Your task to perform on an android device: open a bookmark in the chrome app Image 0: 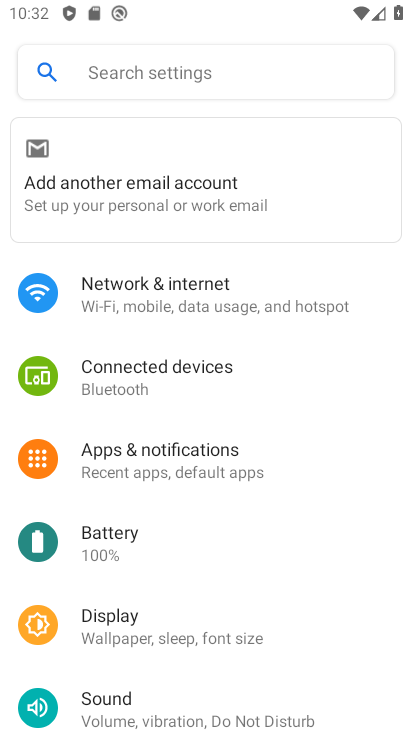
Step 0: press home button
Your task to perform on an android device: open a bookmark in the chrome app Image 1: 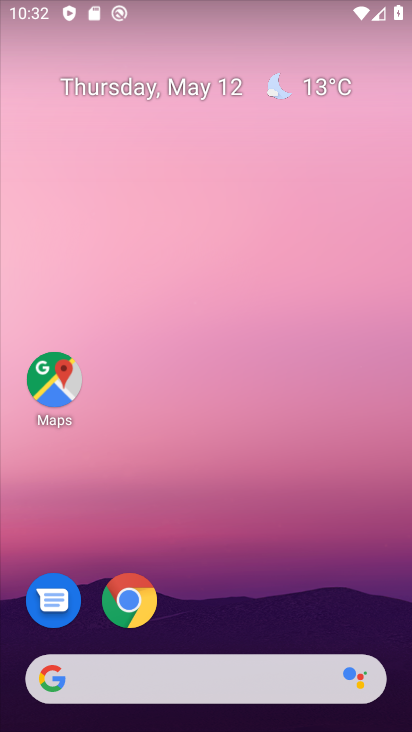
Step 1: click (128, 598)
Your task to perform on an android device: open a bookmark in the chrome app Image 2: 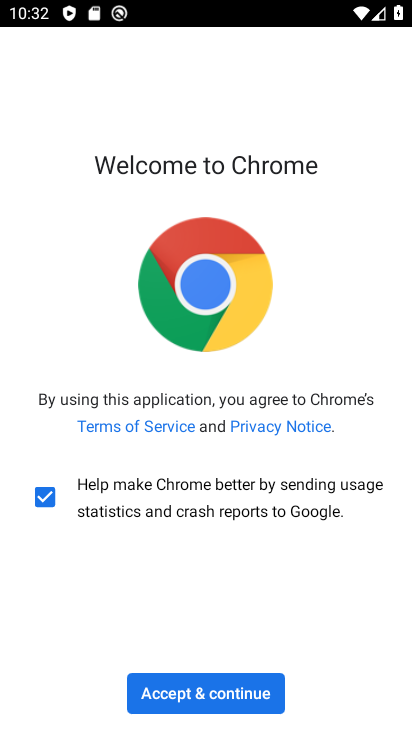
Step 2: click (191, 694)
Your task to perform on an android device: open a bookmark in the chrome app Image 3: 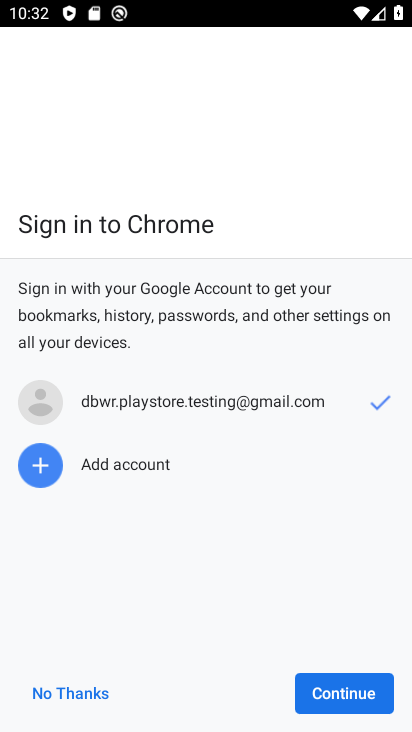
Step 3: click (353, 693)
Your task to perform on an android device: open a bookmark in the chrome app Image 4: 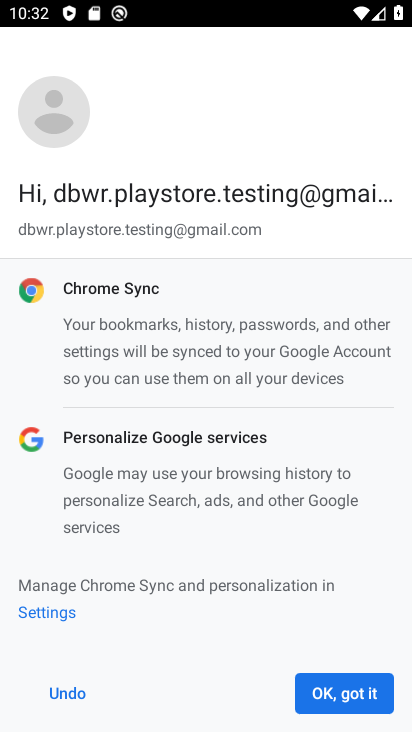
Step 4: click (331, 689)
Your task to perform on an android device: open a bookmark in the chrome app Image 5: 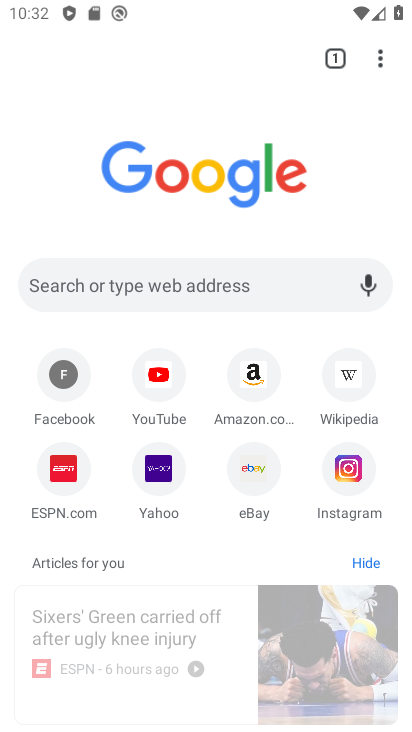
Step 5: click (374, 61)
Your task to perform on an android device: open a bookmark in the chrome app Image 6: 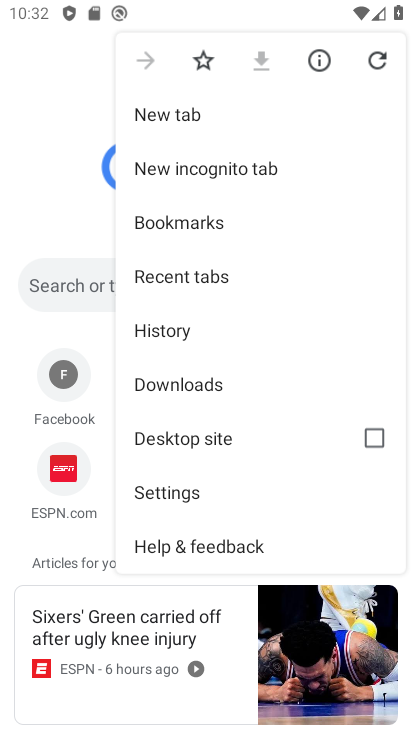
Step 6: click (189, 220)
Your task to perform on an android device: open a bookmark in the chrome app Image 7: 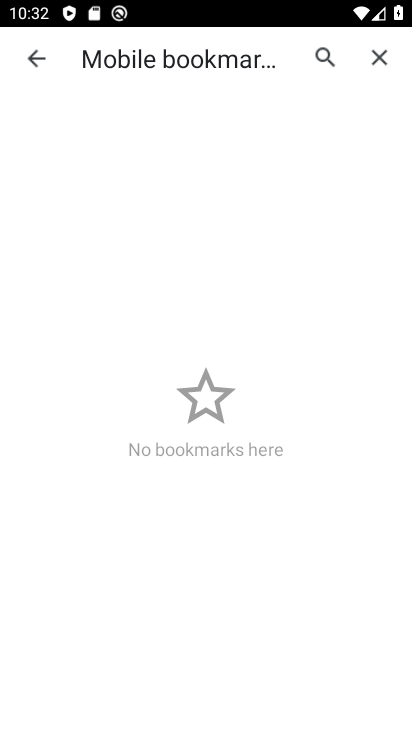
Step 7: task complete